Your task to perform on an android device: Open display settings Image 0: 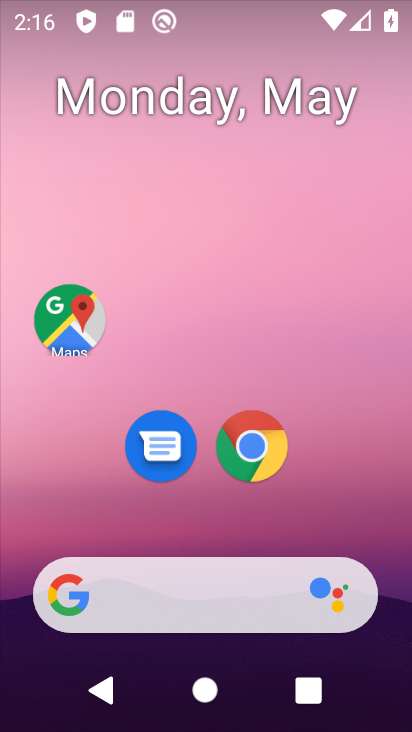
Step 0: drag from (357, 479) to (375, 176)
Your task to perform on an android device: Open display settings Image 1: 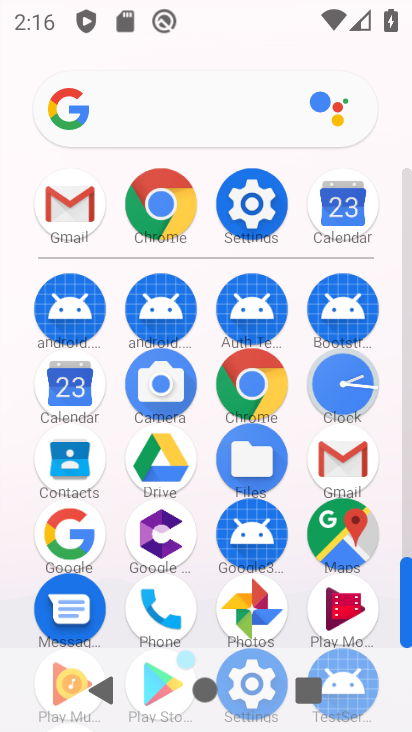
Step 1: click (244, 201)
Your task to perform on an android device: Open display settings Image 2: 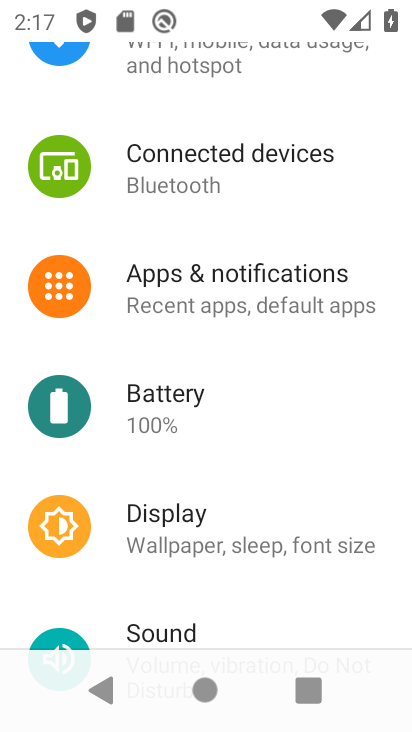
Step 2: click (190, 540)
Your task to perform on an android device: Open display settings Image 3: 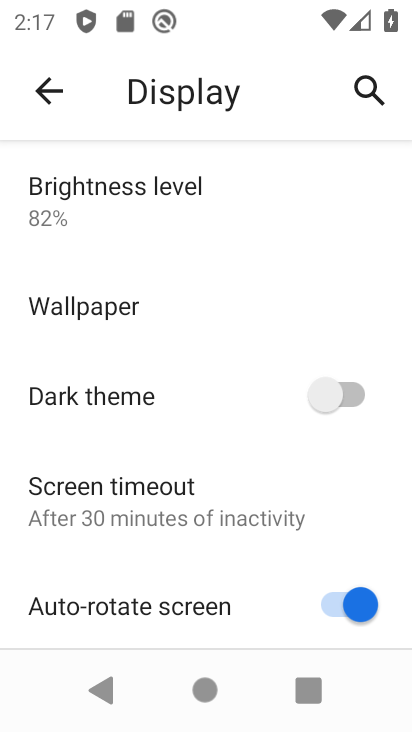
Step 3: task complete